Your task to perform on an android device: toggle data saver in the chrome app Image 0: 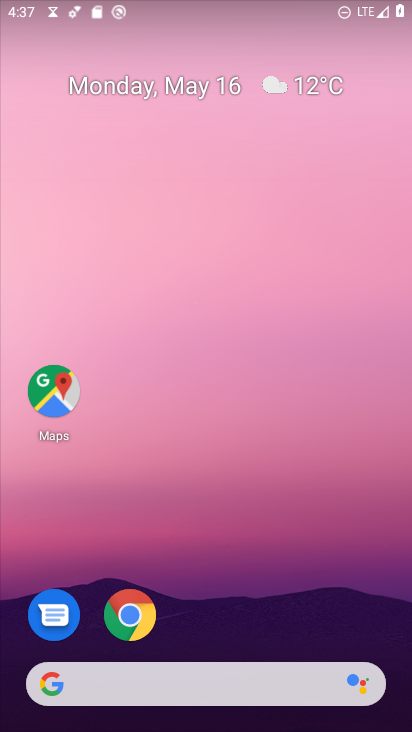
Step 0: click (137, 615)
Your task to perform on an android device: toggle data saver in the chrome app Image 1: 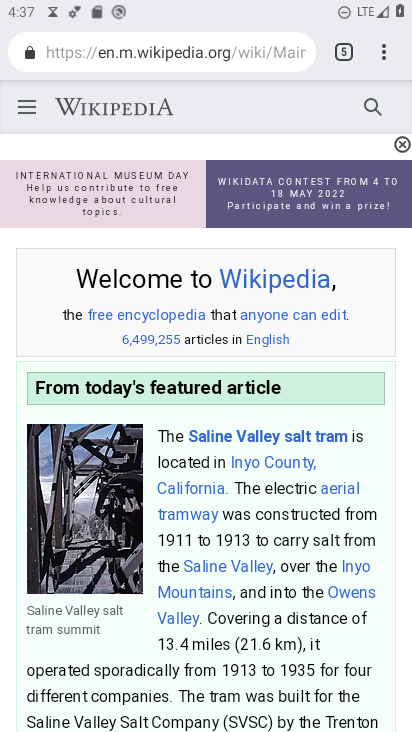
Step 1: click (384, 56)
Your task to perform on an android device: toggle data saver in the chrome app Image 2: 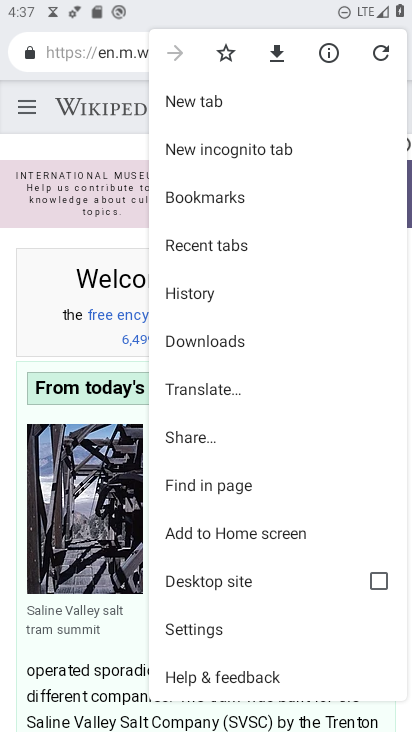
Step 2: click (192, 623)
Your task to perform on an android device: toggle data saver in the chrome app Image 3: 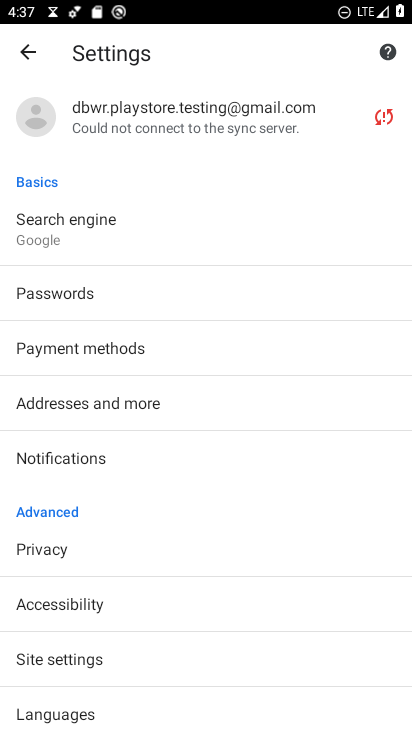
Step 3: drag from (74, 695) to (80, 301)
Your task to perform on an android device: toggle data saver in the chrome app Image 4: 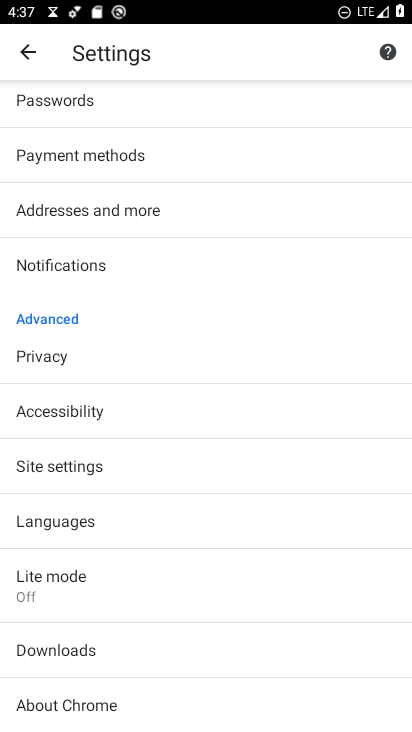
Step 4: click (53, 574)
Your task to perform on an android device: toggle data saver in the chrome app Image 5: 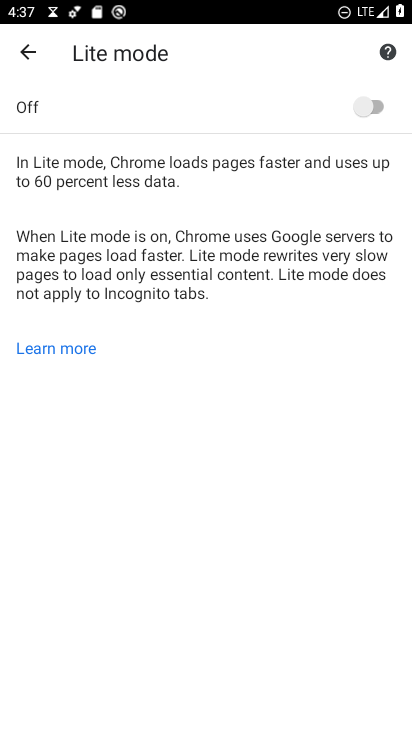
Step 5: click (376, 104)
Your task to perform on an android device: toggle data saver in the chrome app Image 6: 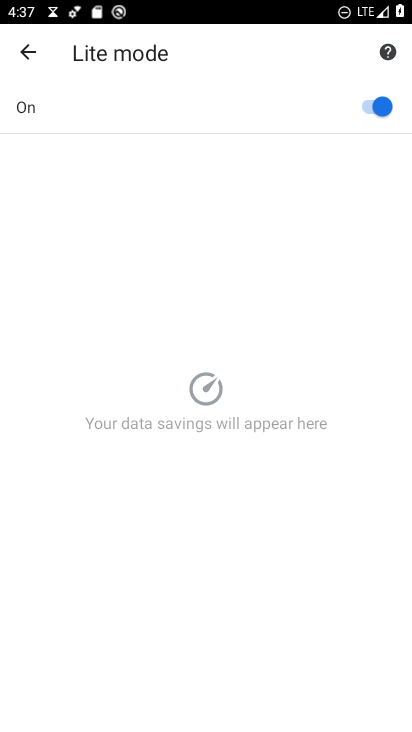
Step 6: task complete